Your task to perform on an android device: toggle pop-ups in chrome Image 0: 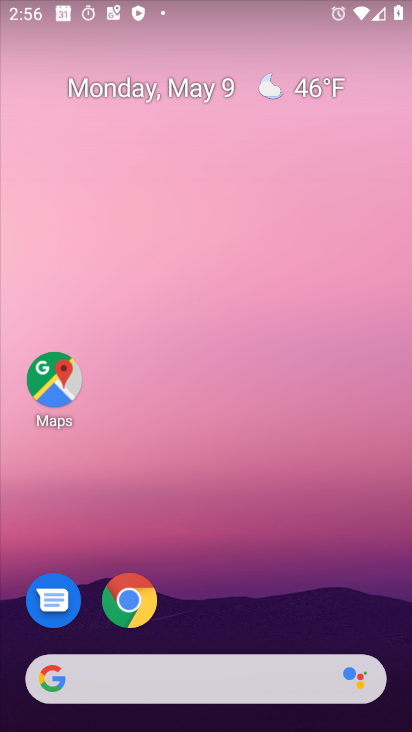
Step 0: click (134, 609)
Your task to perform on an android device: toggle pop-ups in chrome Image 1: 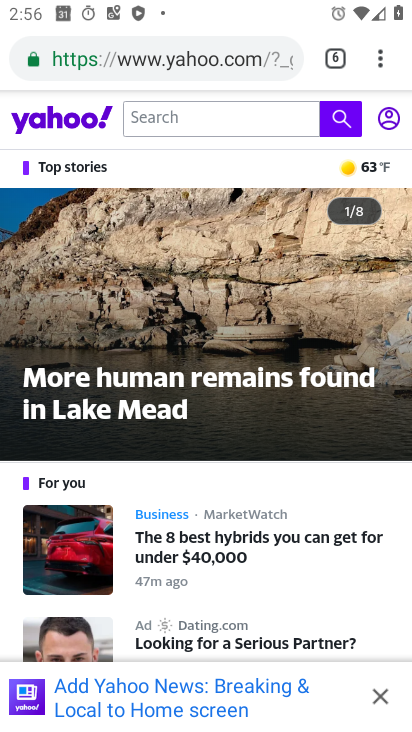
Step 1: drag from (377, 57) to (174, 619)
Your task to perform on an android device: toggle pop-ups in chrome Image 2: 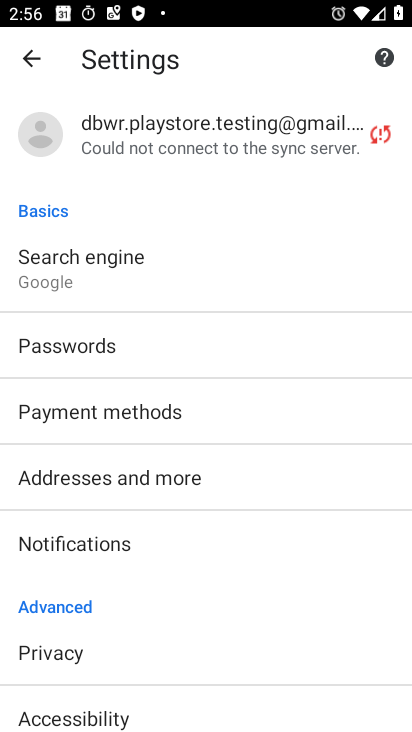
Step 2: drag from (183, 642) to (232, 224)
Your task to perform on an android device: toggle pop-ups in chrome Image 3: 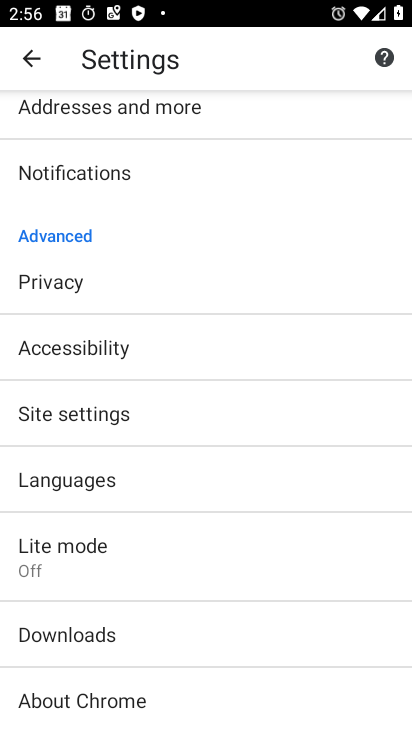
Step 3: click (139, 423)
Your task to perform on an android device: toggle pop-ups in chrome Image 4: 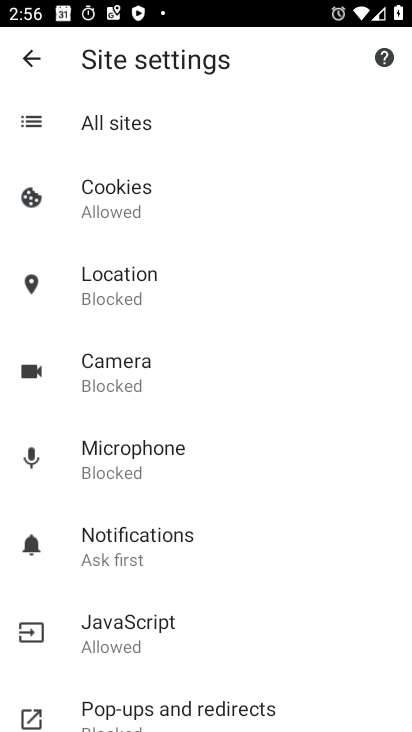
Step 4: click (136, 706)
Your task to perform on an android device: toggle pop-ups in chrome Image 5: 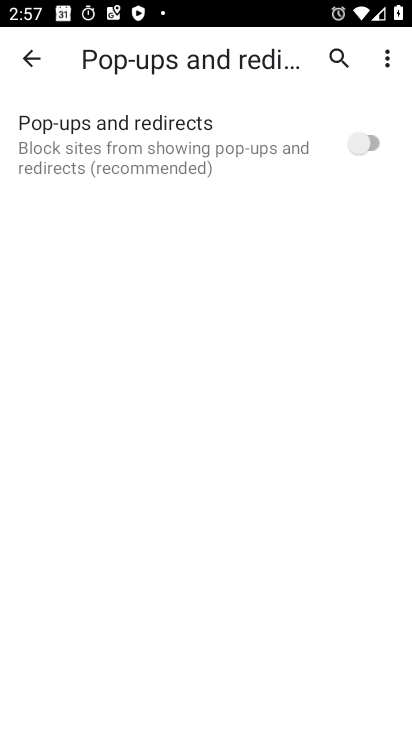
Step 5: click (365, 148)
Your task to perform on an android device: toggle pop-ups in chrome Image 6: 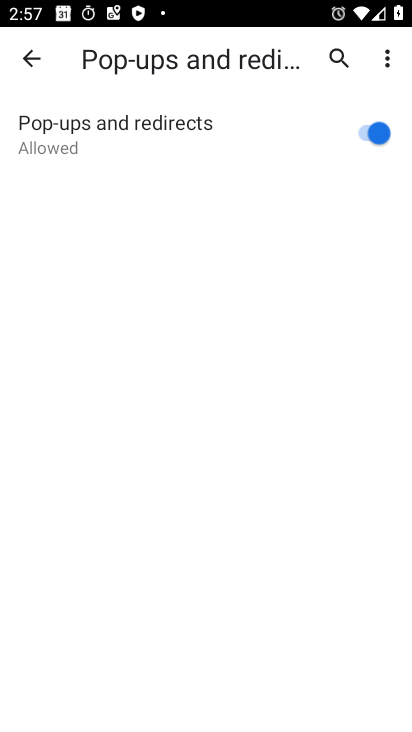
Step 6: task complete